Your task to perform on an android device: toggle airplane mode Image 0: 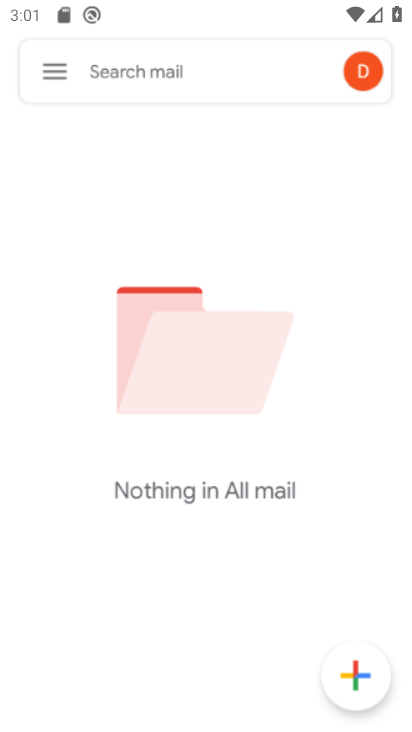
Step 0: drag from (214, 699) to (156, 288)
Your task to perform on an android device: toggle airplane mode Image 1: 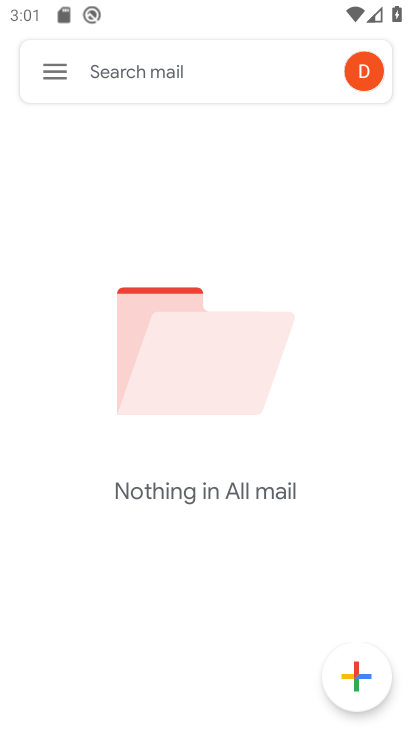
Step 1: press back button
Your task to perform on an android device: toggle airplane mode Image 2: 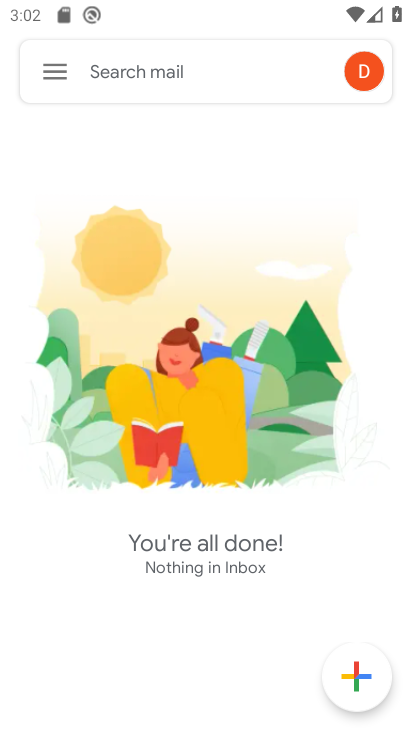
Step 2: press back button
Your task to perform on an android device: toggle airplane mode Image 3: 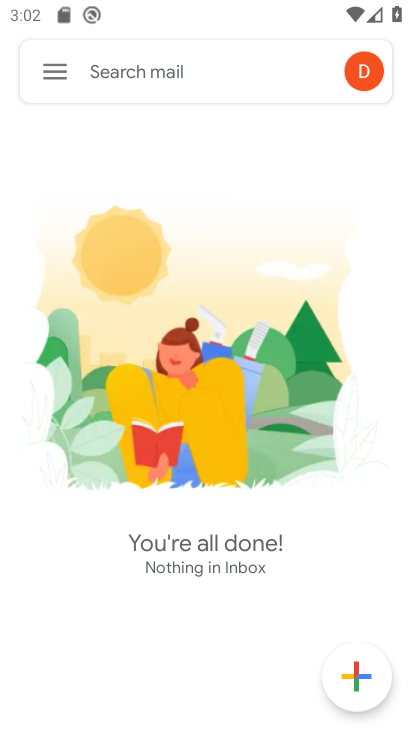
Step 3: press back button
Your task to perform on an android device: toggle airplane mode Image 4: 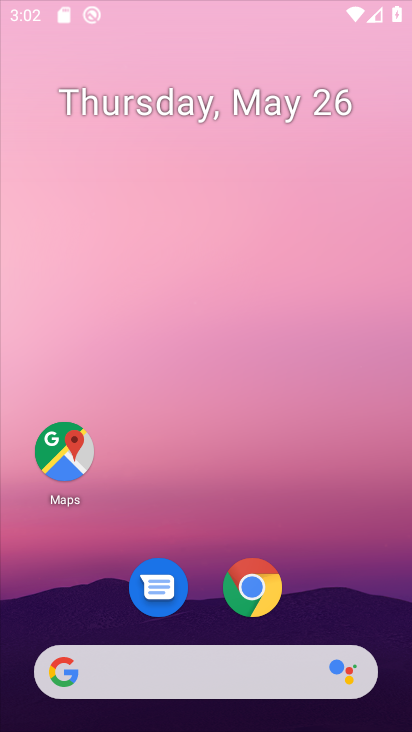
Step 4: press back button
Your task to perform on an android device: toggle airplane mode Image 5: 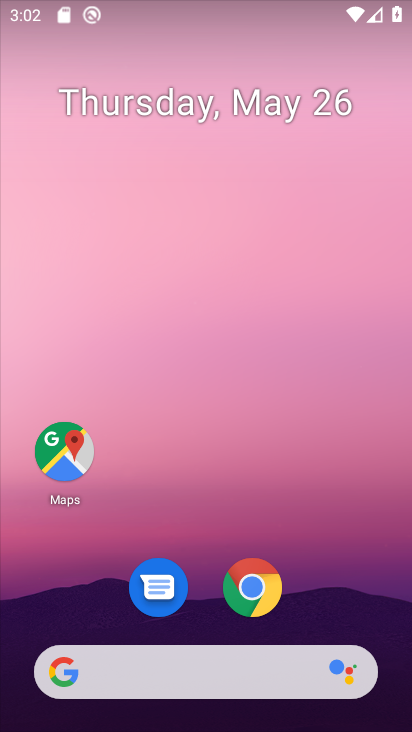
Step 5: drag from (224, 649) to (144, 160)
Your task to perform on an android device: toggle airplane mode Image 6: 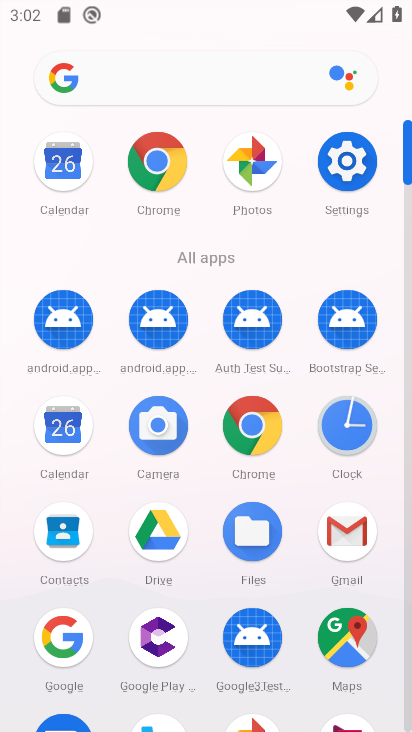
Step 6: click (352, 167)
Your task to perform on an android device: toggle airplane mode Image 7: 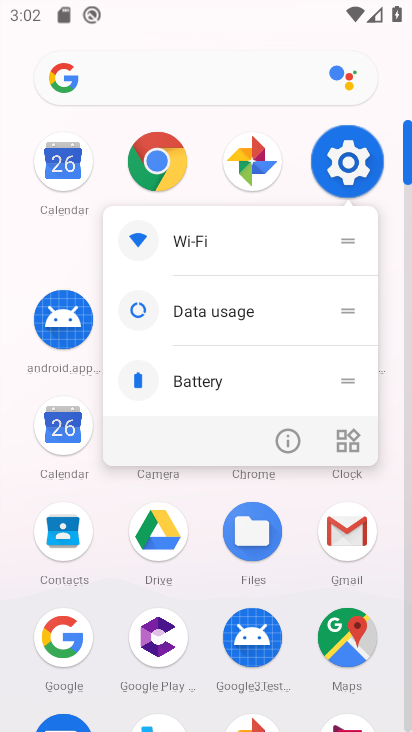
Step 7: click (334, 171)
Your task to perform on an android device: toggle airplane mode Image 8: 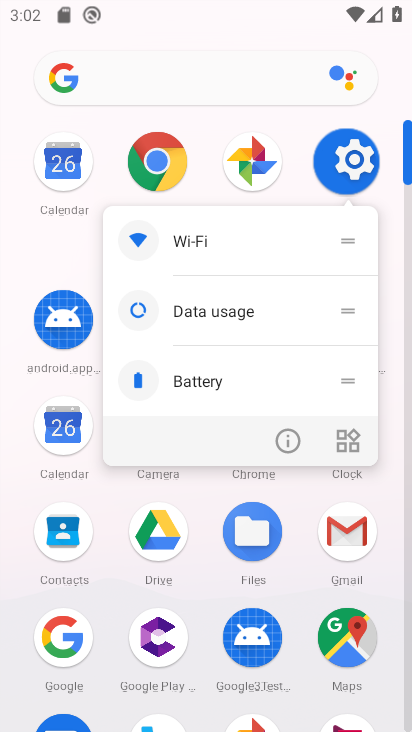
Step 8: click (334, 170)
Your task to perform on an android device: toggle airplane mode Image 9: 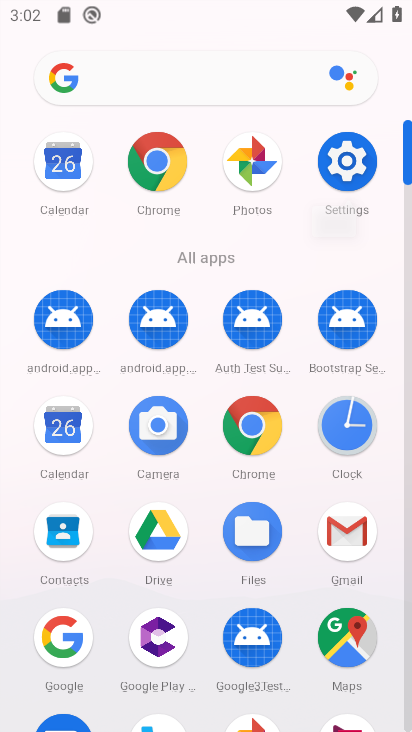
Step 9: click (331, 166)
Your task to perform on an android device: toggle airplane mode Image 10: 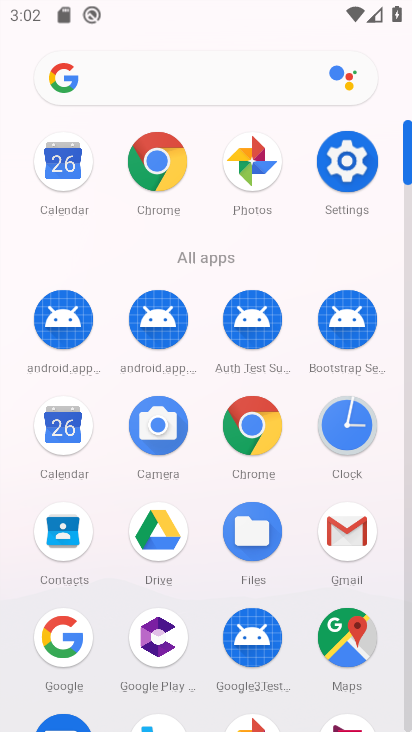
Step 10: click (331, 165)
Your task to perform on an android device: toggle airplane mode Image 11: 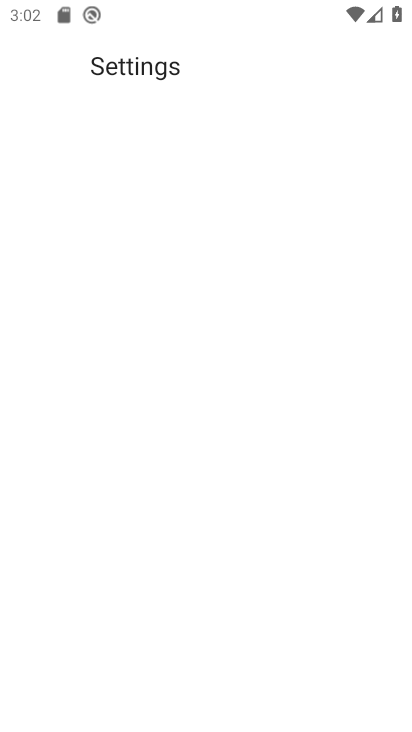
Step 11: click (331, 165)
Your task to perform on an android device: toggle airplane mode Image 12: 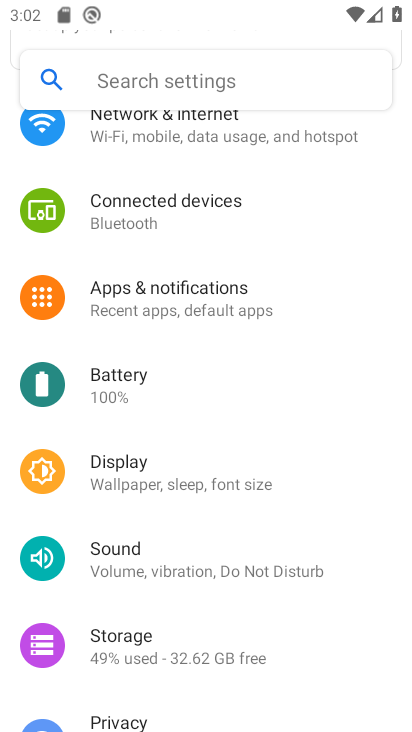
Step 12: drag from (136, 278) to (210, 550)
Your task to perform on an android device: toggle airplane mode Image 13: 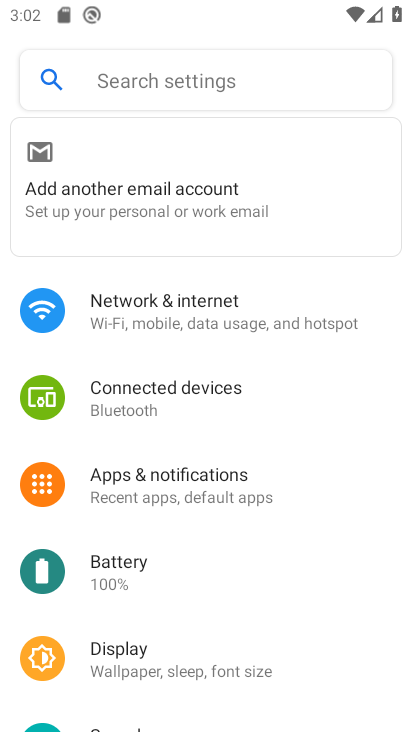
Step 13: drag from (192, 346) to (222, 571)
Your task to perform on an android device: toggle airplane mode Image 14: 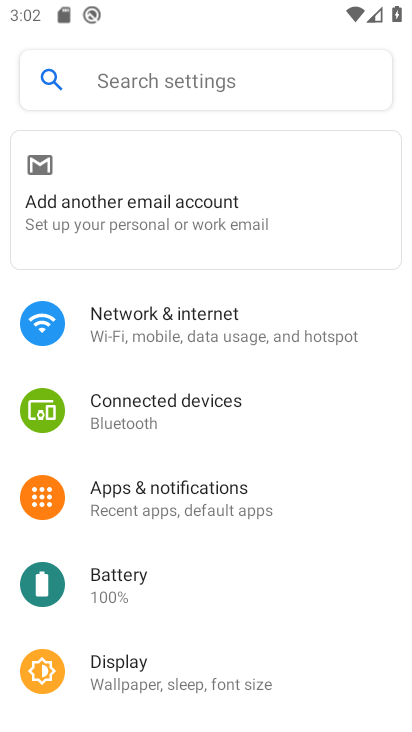
Step 14: click (169, 312)
Your task to perform on an android device: toggle airplane mode Image 15: 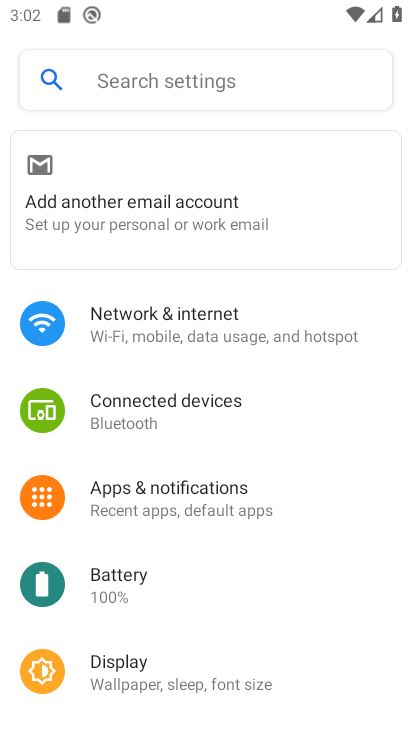
Step 15: click (184, 326)
Your task to perform on an android device: toggle airplane mode Image 16: 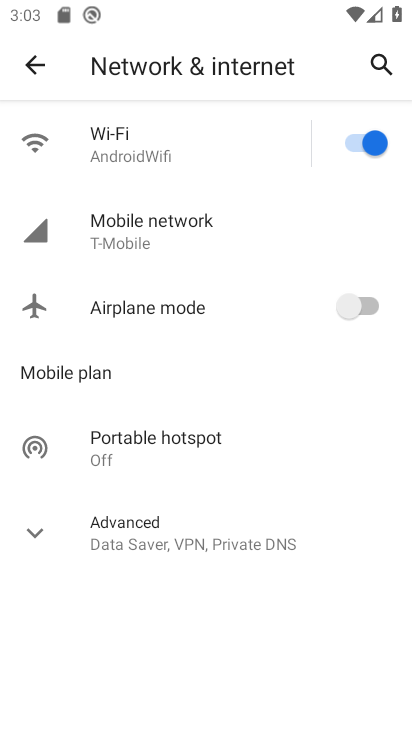
Step 16: click (347, 308)
Your task to perform on an android device: toggle airplane mode Image 17: 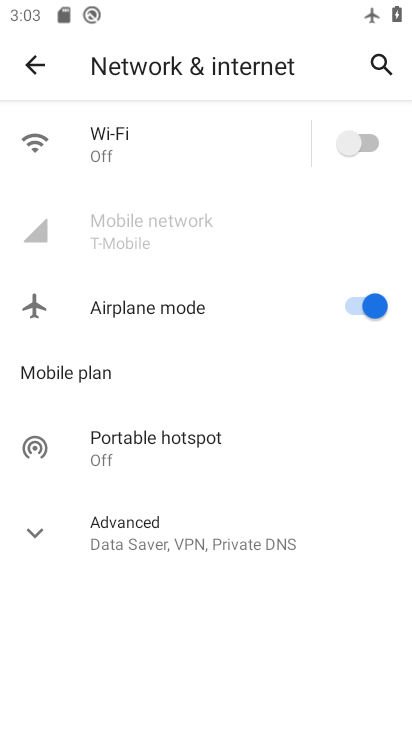
Step 17: task complete